Your task to perform on an android device: open app "The Home Depot" Image 0: 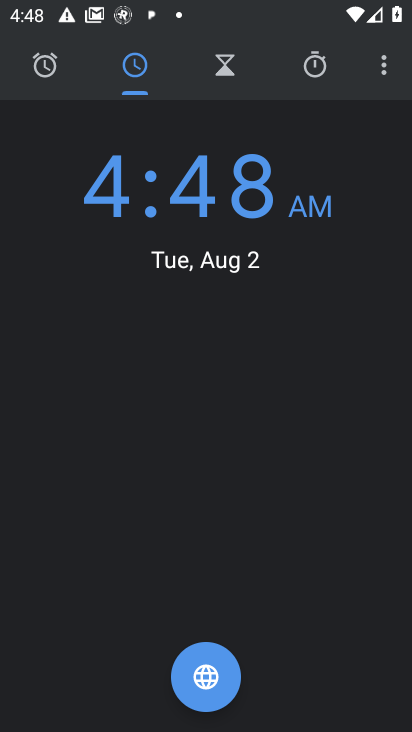
Step 0: press home button
Your task to perform on an android device: open app "The Home Depot" Image 1: 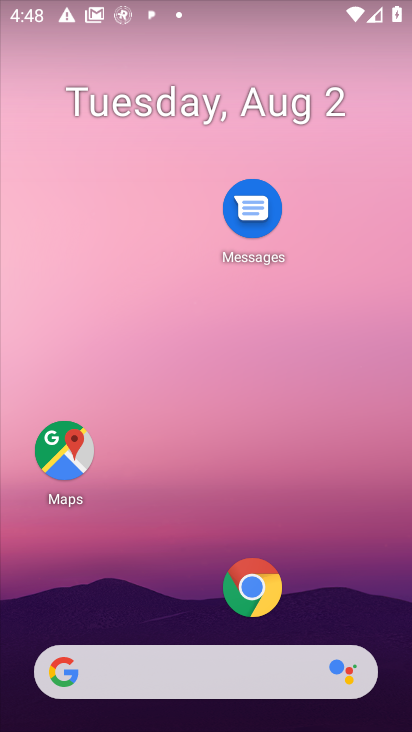
Step 1: drag from (138, 451) to (138, 206)
Your task to perform on an android device: open app "The Home Depot" Image 2: 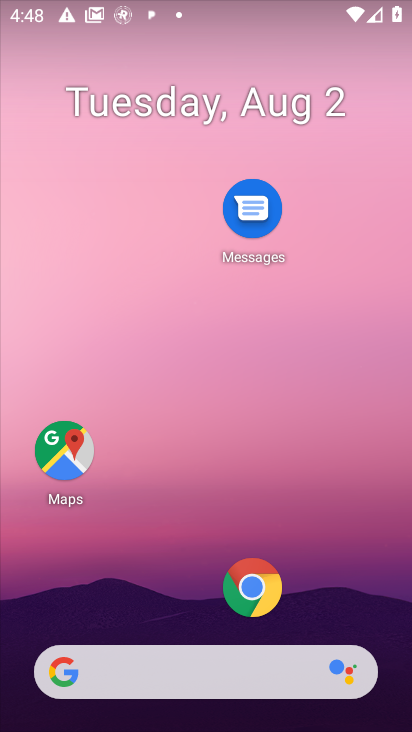
Step 2: drag from (179, 586) to (211, 177)
Your task to perform on an android device: open app "The Home Depot" Image 3: 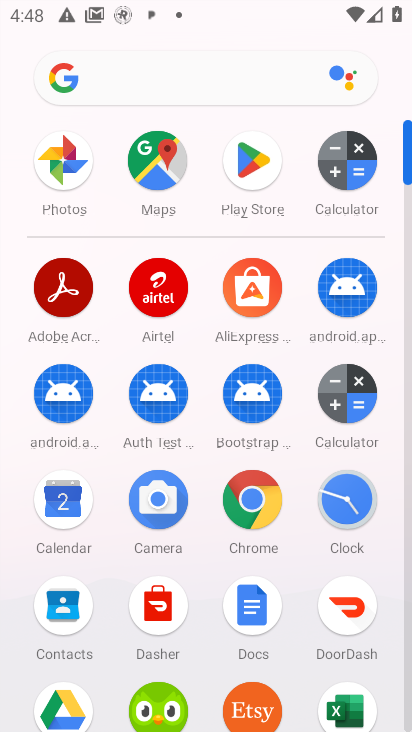
Step 3: click (250, 141)
Your task to perform on an android device: open app "The Home Depot" Image 4: 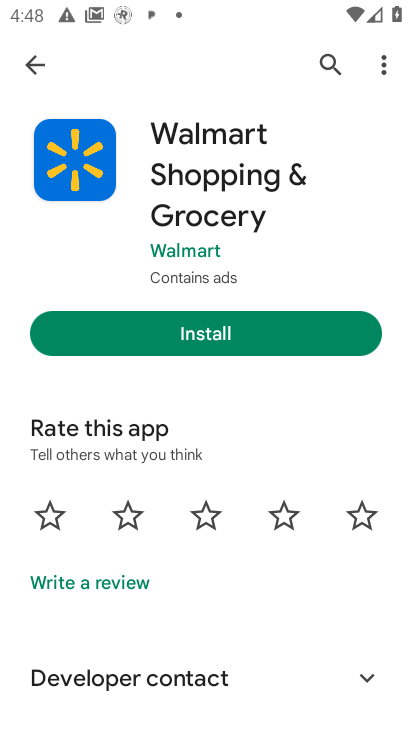
Step 4: click (320, 62)
Your task to perform on an android device: open app "The Home Depot" Image 5: 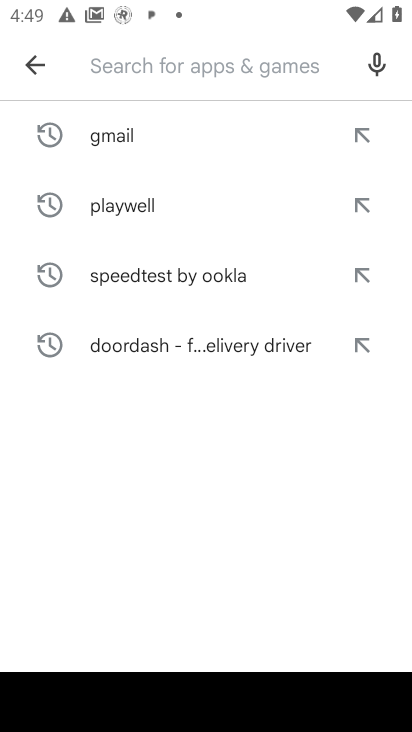
Step 5: type "The Home Depot"
Your task to perform on an android device: open app "The Home Depot" Image 6: 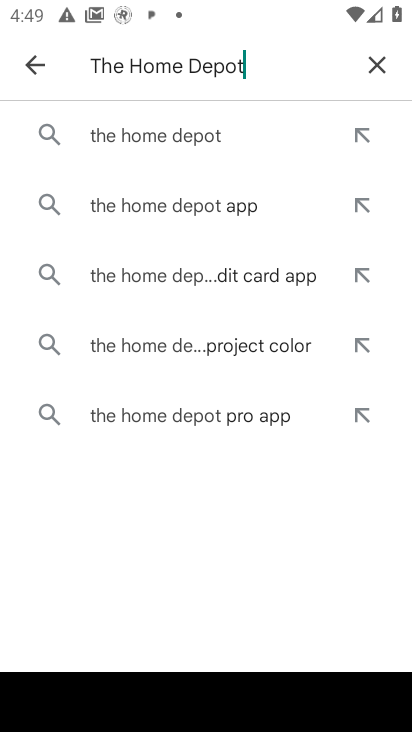
Step 6: type ""
Your task to perform on an android device: open app "The Home Depot" Image 7: 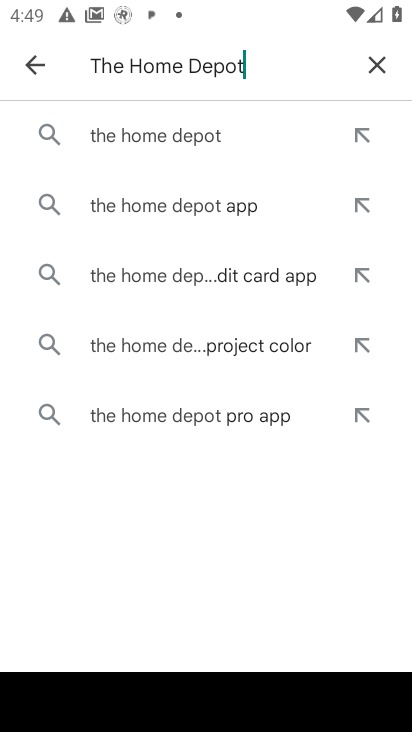
Step 7: click (123, 131)
Your task to perform on an android device: open app "The Home Depot" Image 8: 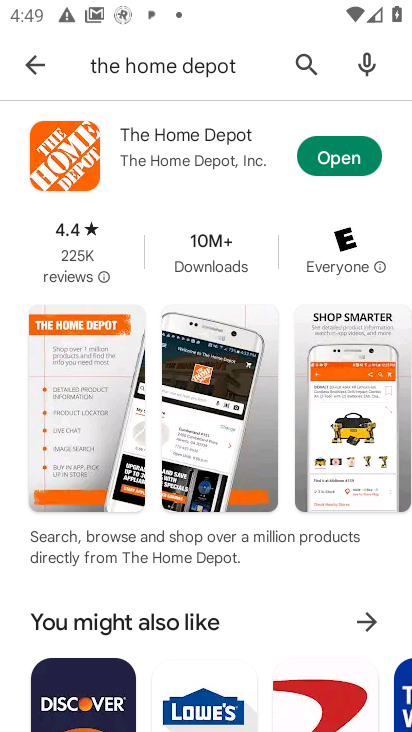
Step 8: click (341, 146)
Your task to perform on an android device: open app "The Home Depot" Image 9: 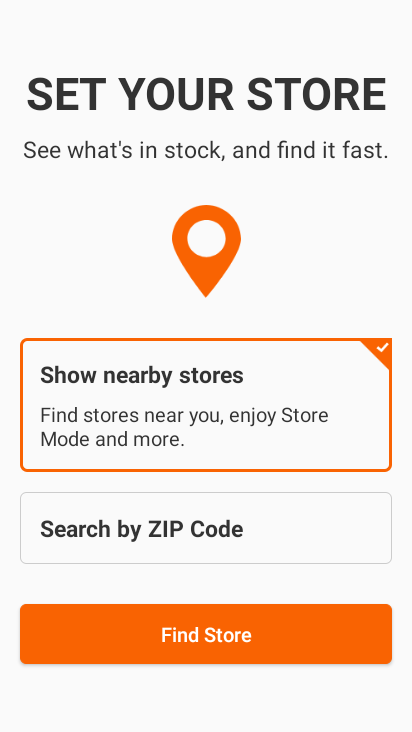
Step 9: task complete